Your task to perform on an android device: turn off notifications in google photos Image 0: 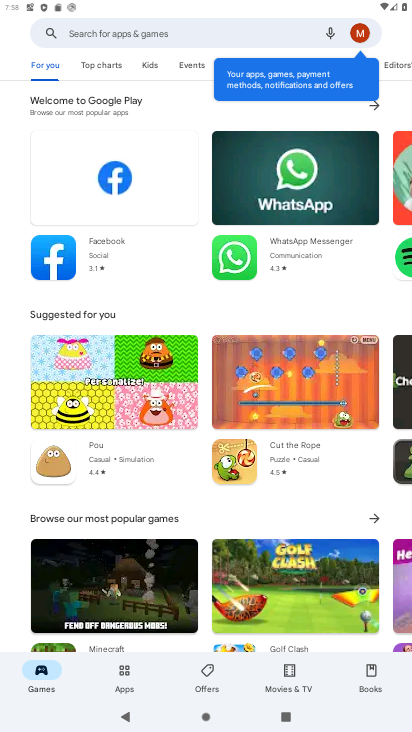
Step 0: press home button
Your task to perform on an android device: turn off notifications in google photos Image 1: 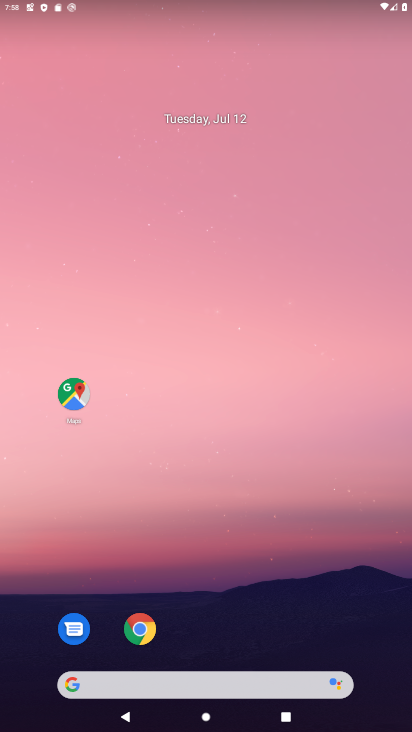
Step 1: drag from (267, 573) to (289, 214)
Your task to perform on an android device: turn off notifications in google photos Image 2: 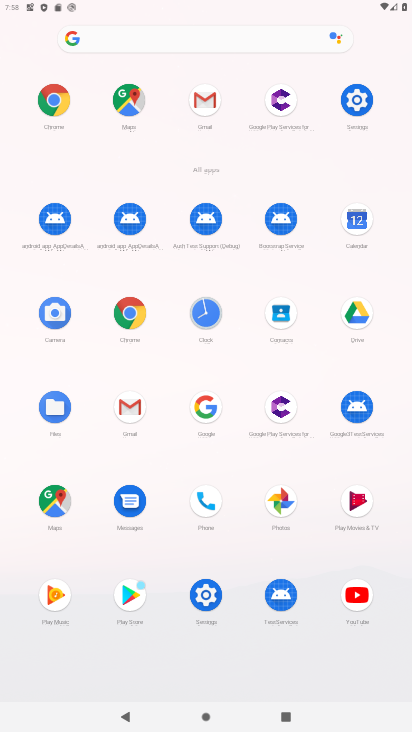
Step 2: click (282, 502)
Your task to perform on an android device: turn off notifications in google photos Image 3: 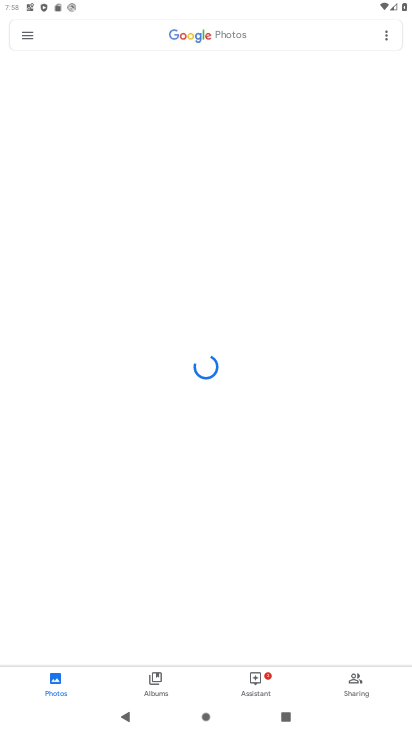
Step 3: click (25, 32)
Your task to perform on an android device: turn off notifications in google photos Image 4: 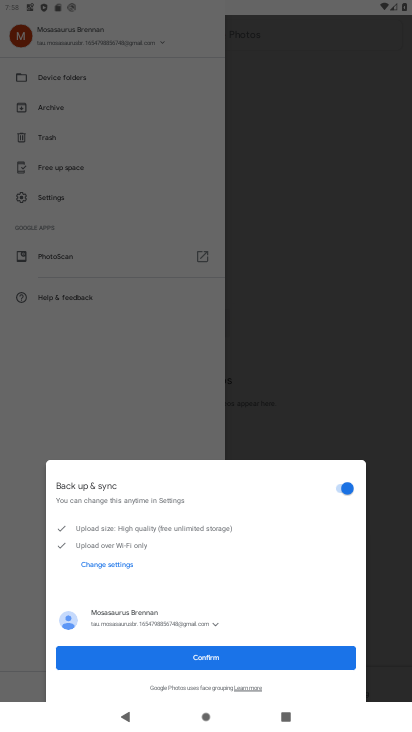
Step 4: click (241, 651)
Your task to perform on an android device: turn off notifications in google photos Image 5: 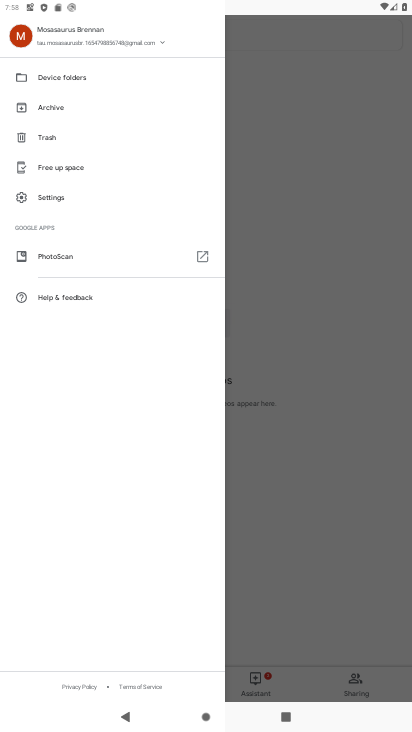
Step 5: click (43, 196)
Your task to perform on an android device: turn off notifications in google photos Image 6: 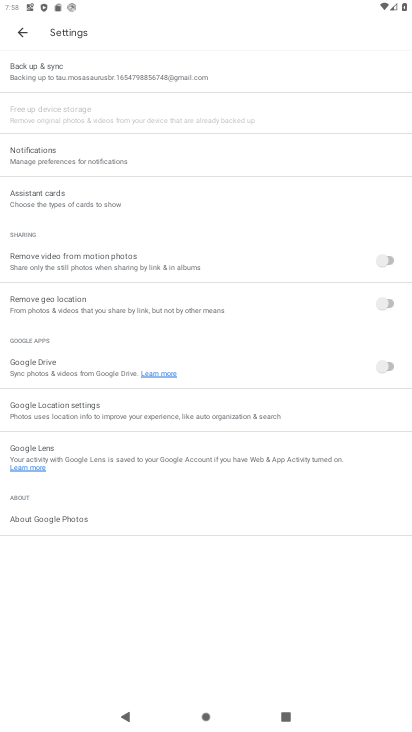
Step 6: click (75, 150)
Your task to perform on an android device: turn off notifications in google photos Image 7: 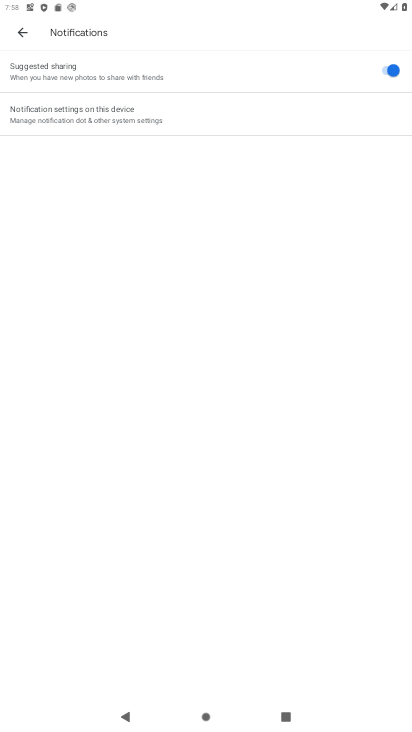
Step 7: click (180, 114)
Your task to perform on an android device: turn off notifications in google photos Image 8: 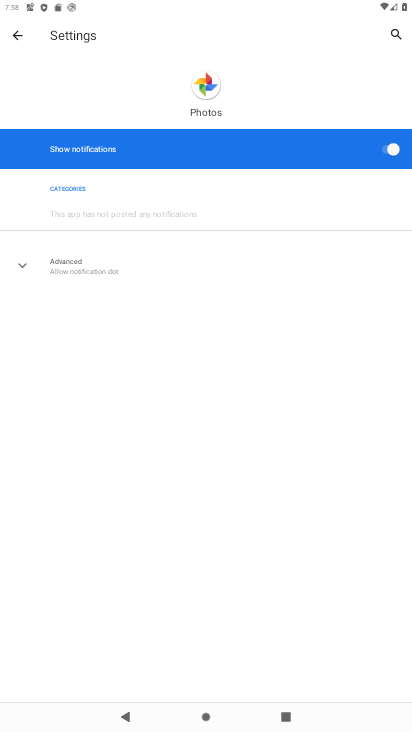
Step 8: click (390, 149)
Your task to perform on an android device: turn off notifications in google photos Image 9: 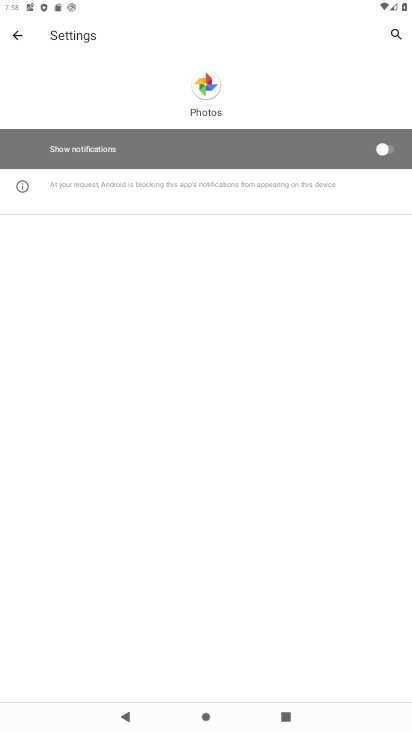
Step 9: task complete